Your task to perform on an android device: Go to notification settings Image 0: 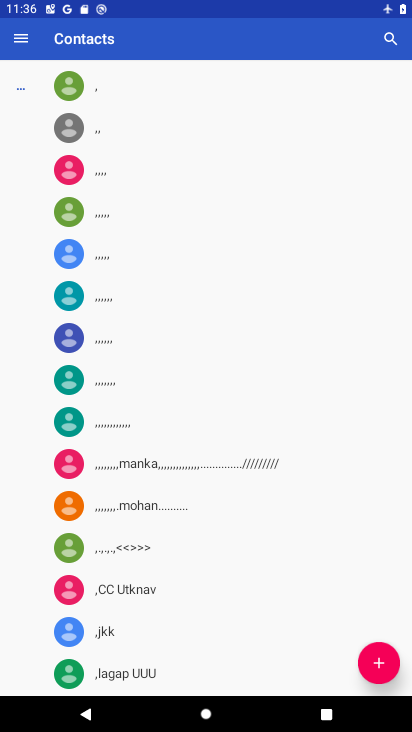
Step 0: press home button
Your task to perform on an android device: Go to notification settings Image 1: 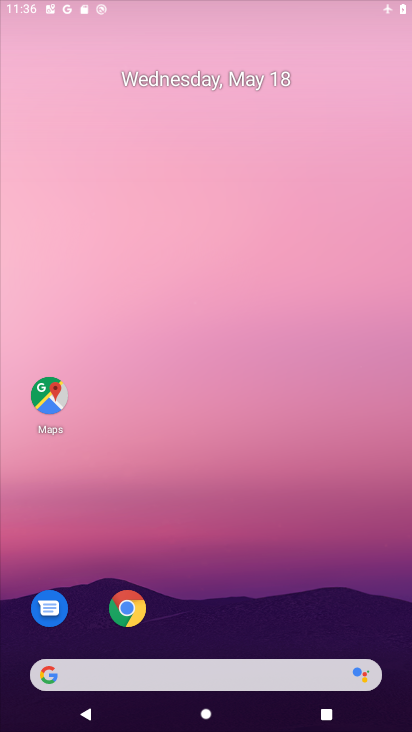
Step 1: drag from (201, 614) to (174, 136)
Your task to perform on an android device: Go to notification settings Image 2: 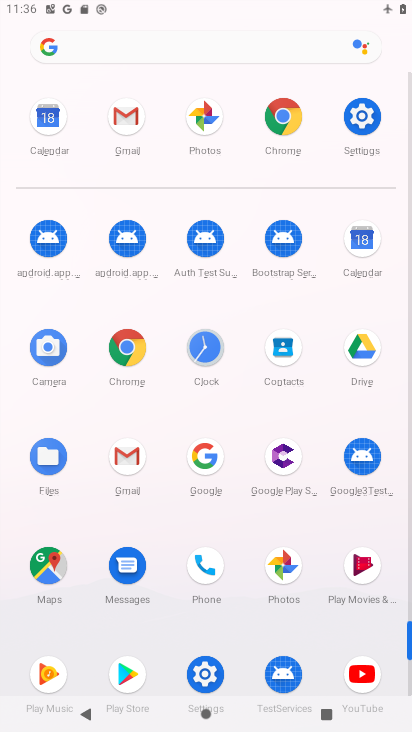
Step 2: click (204, 674)
Your task to perform on an android device: Go to notification settings Image 3: 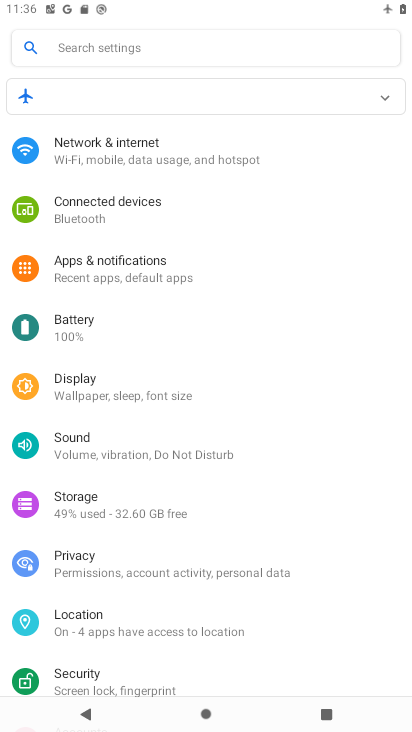
Step 3: click (120, 269)
Your task to perform on an android device: Go to notification settings Image 4: 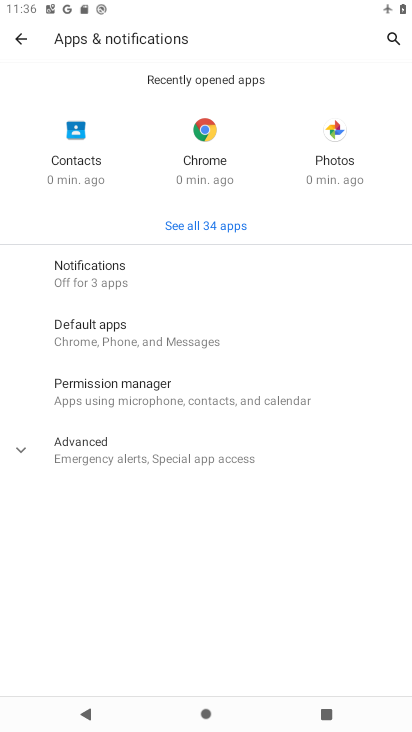
Step 4: click (101, 262)
Your task to perform on an android device: Go to notification settings Image 5: 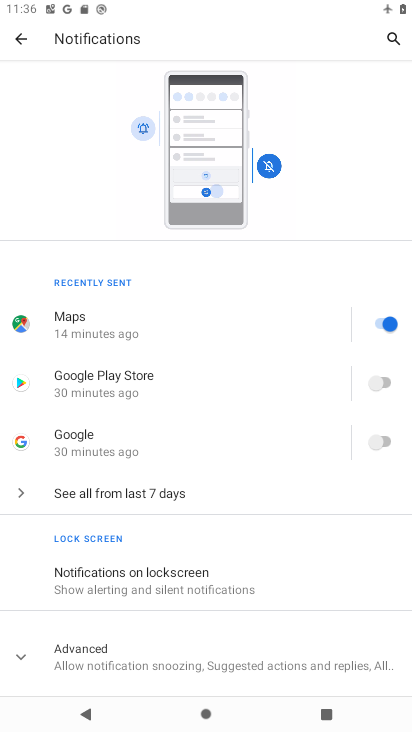
Step 5: click (103, 649)
Your task to perform on an android device: Go to notification settings Image 6: 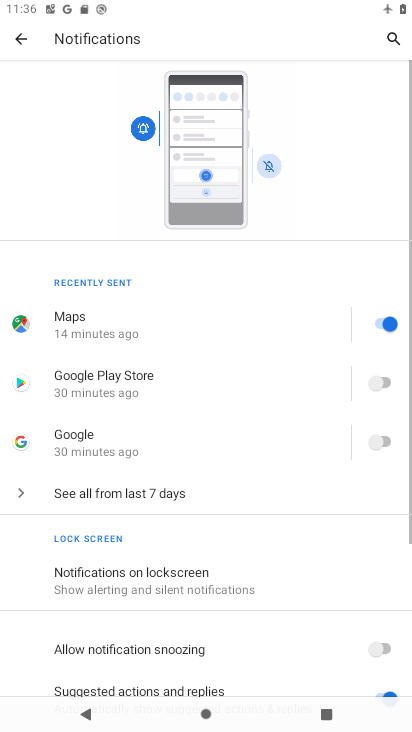
Step 6: task complete